Your task to perform on an android device: open app "NewsBreak: Local News & Alerts" (install if not already installed) Image 0: 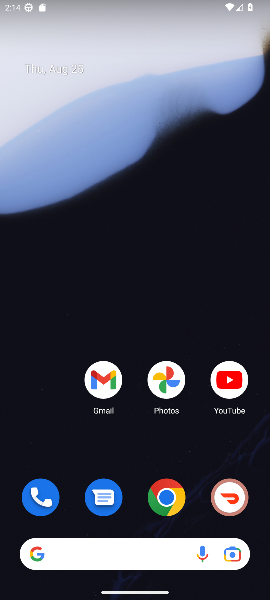
Step 0: drag from (139, 521) to (134, 143)
Your task to perform on an android device: open app "NewsBreak: Local News & Alerts" (install if not already installed) Image 1: 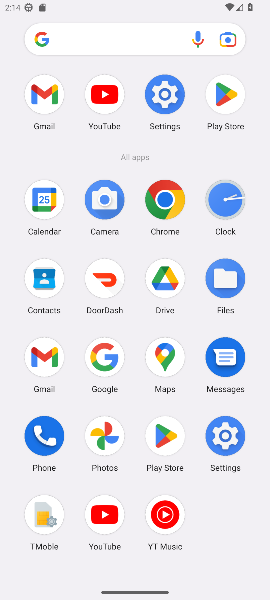
Step 1: click (226, 85)
Your task to perform on an android device: open app "NewsBreak: Local News & Alerts" (install if not already installed) Image 2: 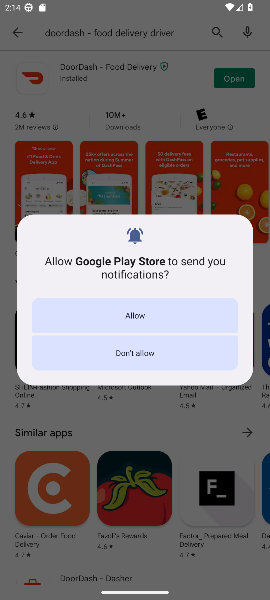
Step 2: click (24, 31)
Your task to perform on an android device: open app "NewsBreak: Local News & Alerts" (install if not already installed) Image 3: 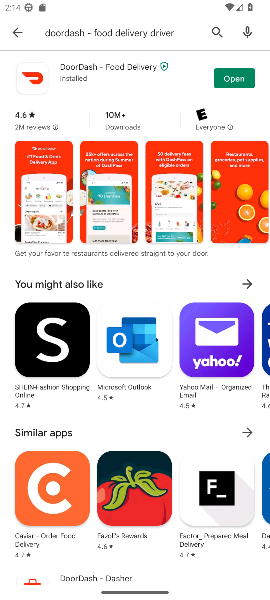
Step 3: click (21, 29)
Your task to perform on an android device: open app "NewsBreak: Local News & Alerts" (install if not already installed) Image 4: 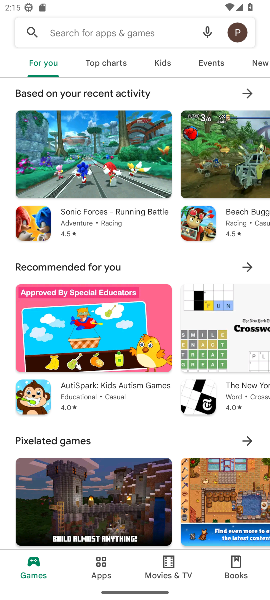
Step 4: click (153, 30)
Your task to perform on an android device: open app "NewsBreak: Local News & Alerts" (install if not already installed) Image 5: 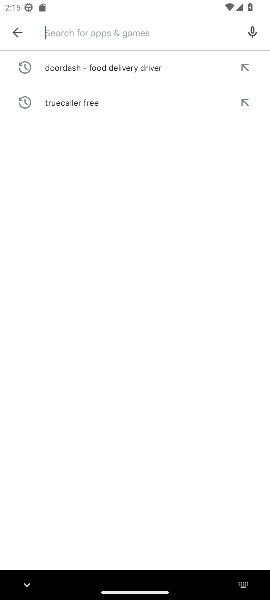
Step 5: type "NewsBreak: Local News & Alerts "
Your task to perform on an android device: open app "NewsBreak: Local News & Alerts" (install if not already installed) Image 6: 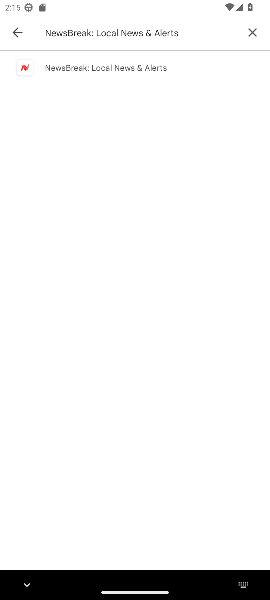
Step 6: click (106, 68)
Your task to perform on an android device: open app "NewsBreak: Local News & Alerts" (install if not already installed) Image 7: 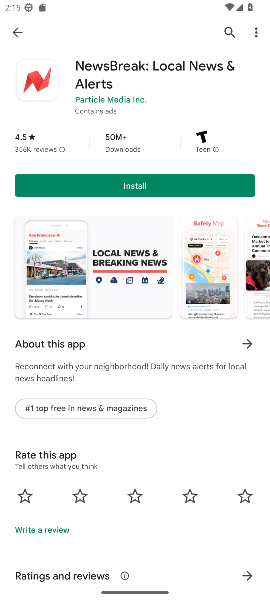
Step 7: click (140, 181)
Your task to perform on an android device: open app "NewsBreak: Local News & Alerts" (install if not already installed) Image 8: 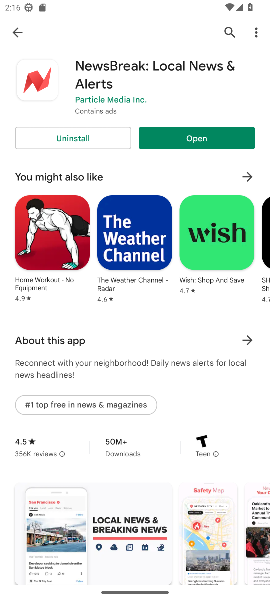
Step 8: task complete